Your task to perform on an android device: change notification settings in the gmail app Image 0: 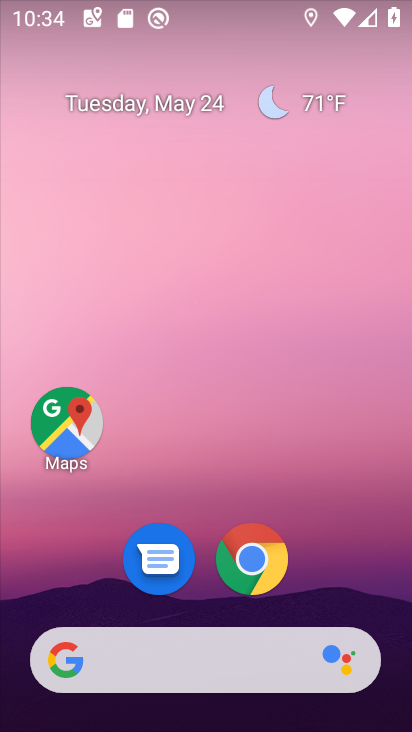
Step 0: drag from (386, 609) to (164, 110)
Your task to perform on an android device: change notification settings in the gmail app Image 1: 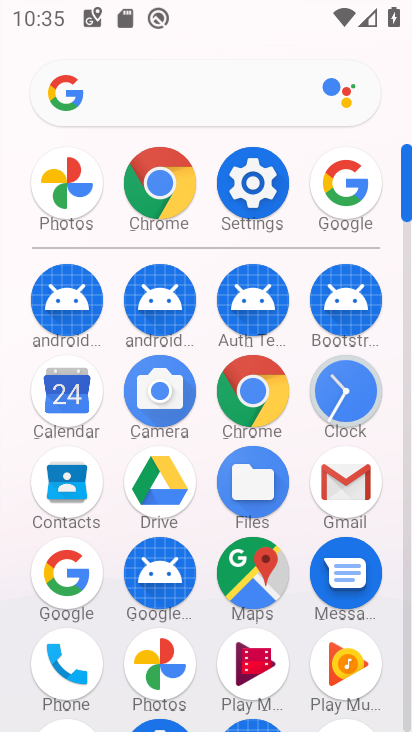
Step 1: click (365, 490)
Your task to perform on an android device: change notification settings in the gmail app Image 2: 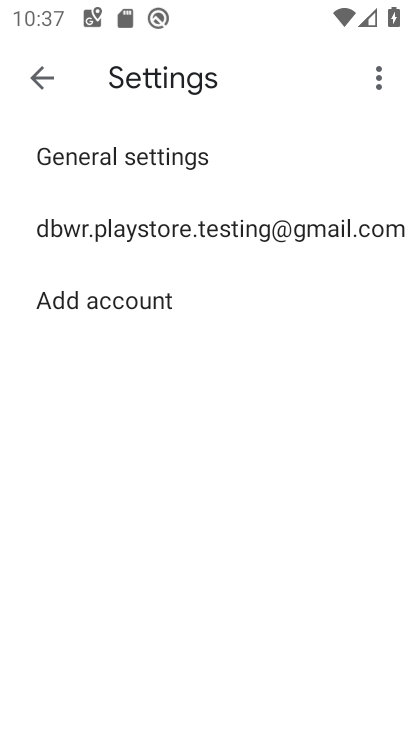
Step 2: click (237, 227)
Your task to perform on an android device: change notification settings in the gmail app Image 3: 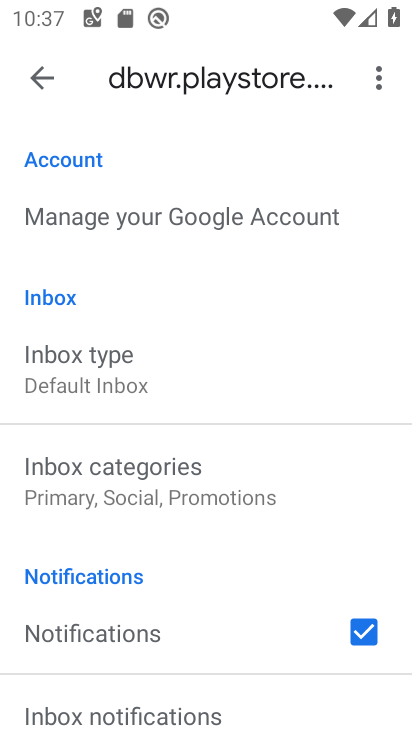
Step 3: click (169, 629)
Your task to perform on an android device: change notification settings in the gmail app Image 4: 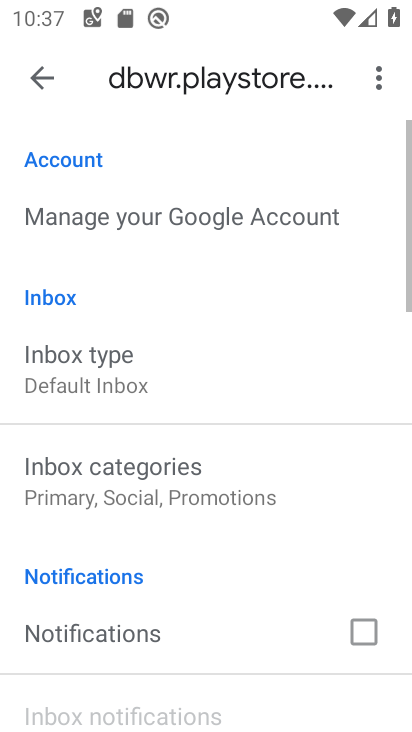
Step 4: task complete